Your task to perform on an android device: Search for sushi restaurants on Maps Image 0: 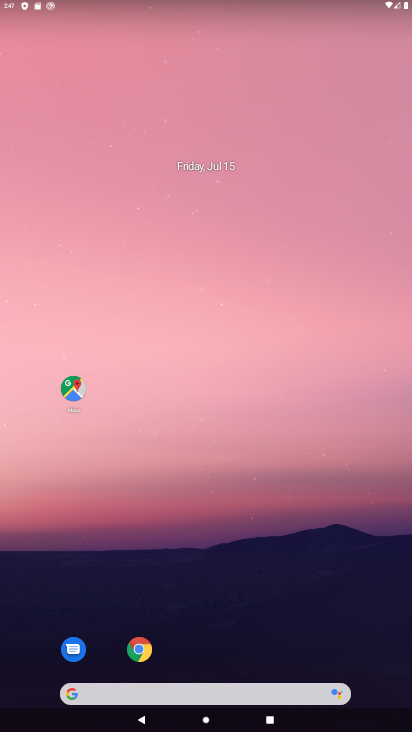
Step 0: click (76, 390)
Your task to perform on an android device: Search for sushi restaurants on Maps Image 1: 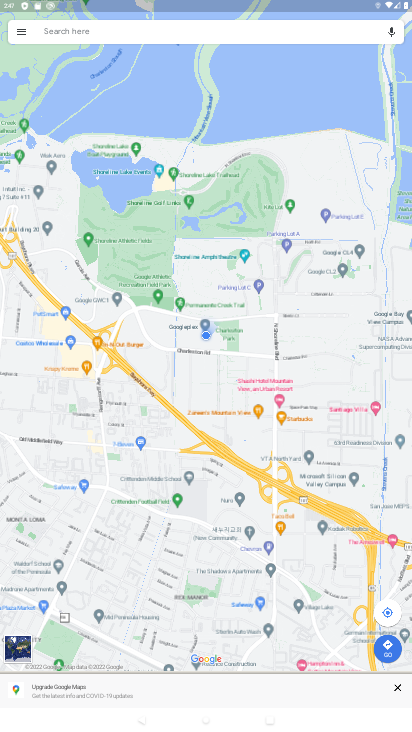
Step 1: click (207, 25)
Your task to perform on an android device: Search for sushi restaurants on Maps Image 2: 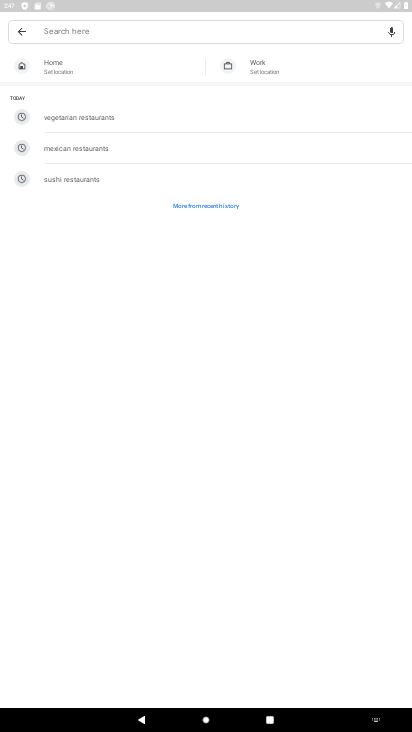
Step 2: click (232, 177)
Your task to perform on an android device: Search for sushi restaurants on Maps Image 3: 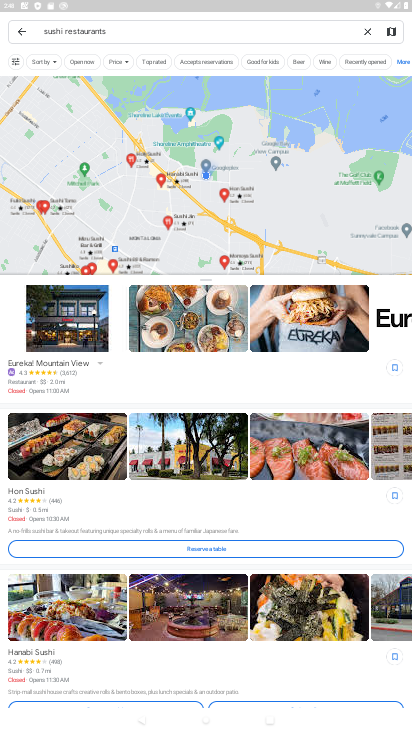
Step 3: task complete